Your task to perform on an android device: delete the emails in spam in the gmail app Image 0: 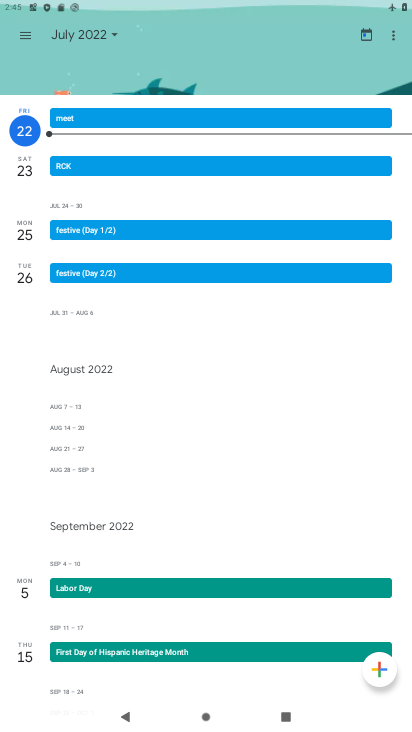
Step 0: press home button
Your task to perform on an android device: delete the emails in spam in the gmail app Image 1: 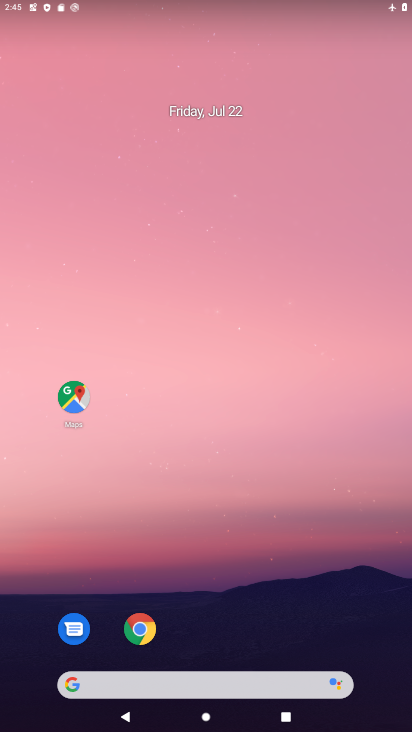
Step 1: drag from (217, 690) to (142, 72)
Your task to perform on an android device: delete the emails in spam in the gmail app Image 2: 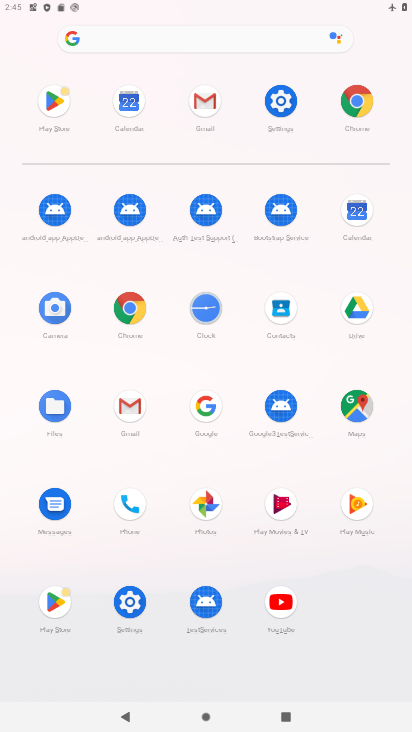
Step 2: click (133, 401)
Your task to perform on an android device: delete the emails in spam in the gmail app Image 3: 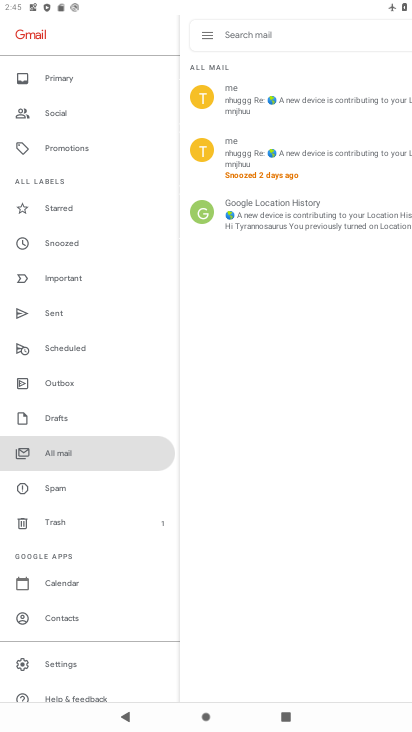
Step 3: click (82, 484)
Your task to perform on an android device: delete the emails in spam in the gmail app Image 4: 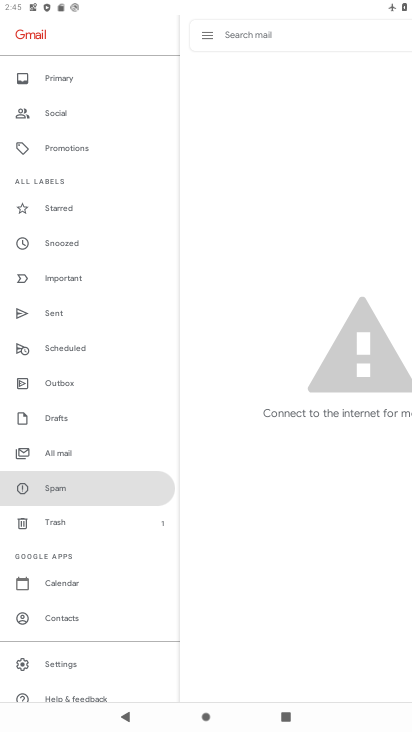
Step 4: task complete